Your task to perform on an android device: Is it going to rain tomorrow? Image 0: 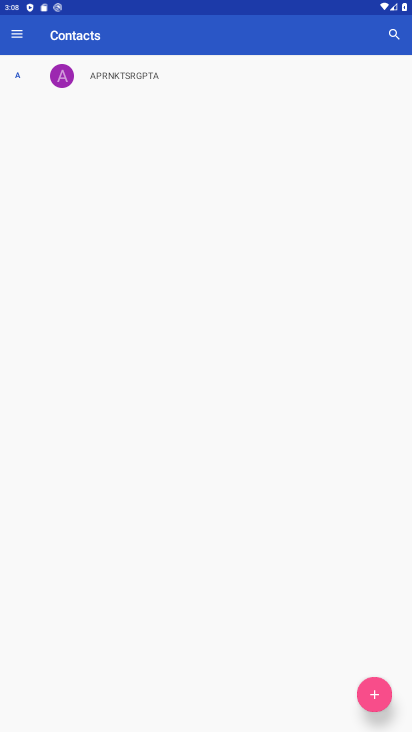
Step 0: press home button
Your task to perform on an android device: Is it going to rain tomorrow? Image 1: 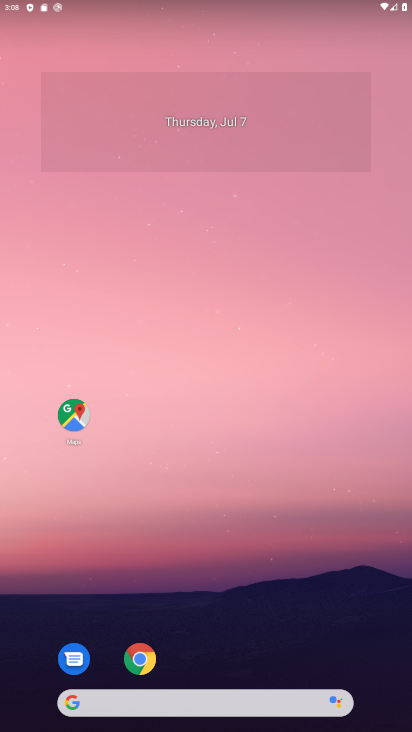
Step 1: drag from (277, 641) to (219, 186)
Your task to perform on an android device: Is it going to rain tomorrow? Image 2: 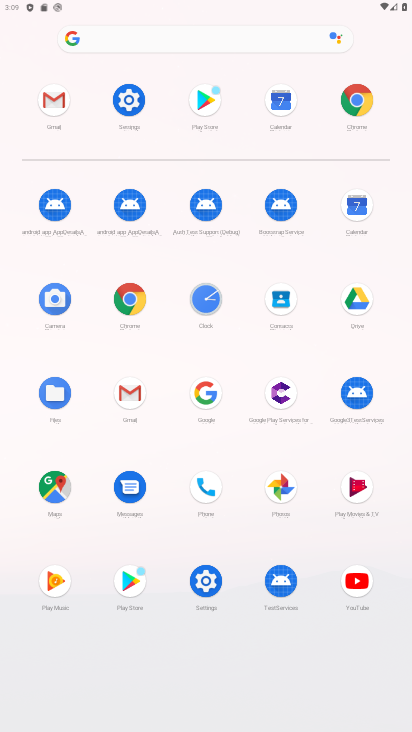
Step 2: click (359, 100)
Your task to perform on an android device: Is it going to rain tomorrow? Image 3: 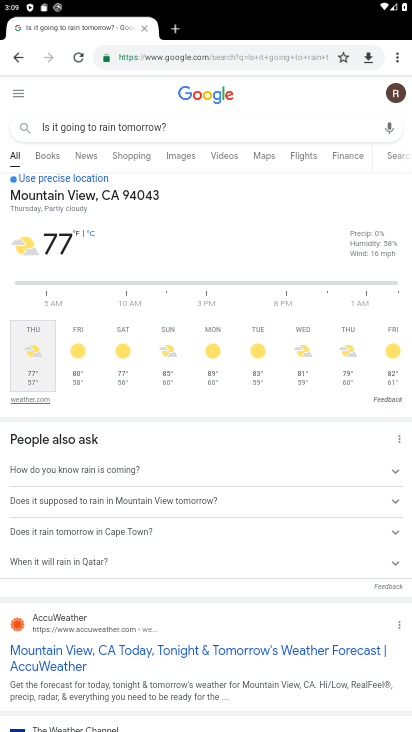
Step 3: task complete